Your task to perform on an android device: visit the assistant section in the google photos Image 0: 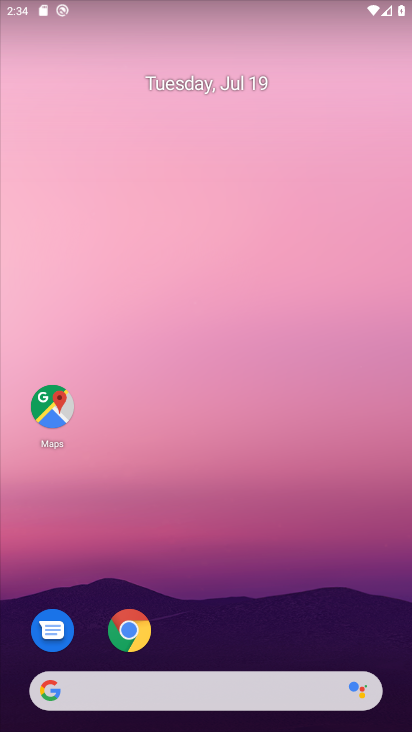
Step 0: drag from (279, 603) to (128, 168)
Your task to perform on an android device: visit the assistant section in the google photos Image 1: 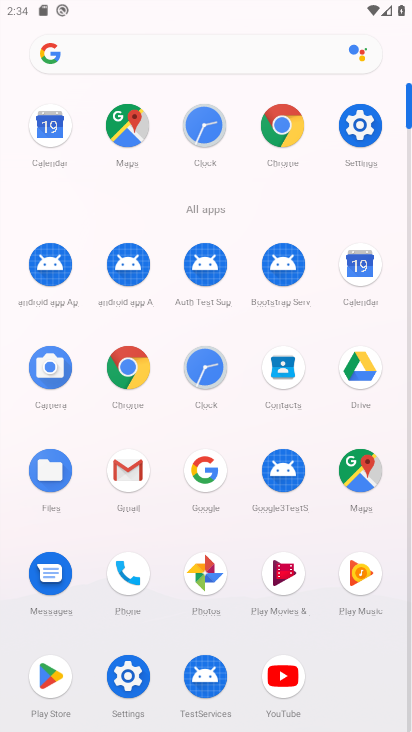
Step 1: click (203, 572)
Your task to perform on an android device: visit the assistant section in the google photos Image 2: 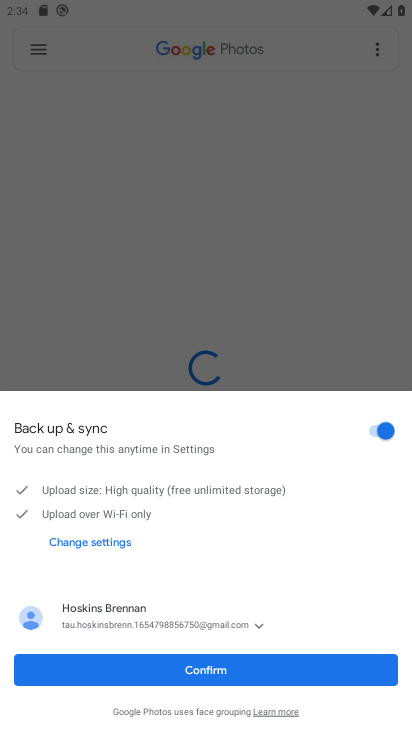
Step 2: click (208, 670)
Your task to perform on an android device: visit the assistant section in the google photos Image 3: 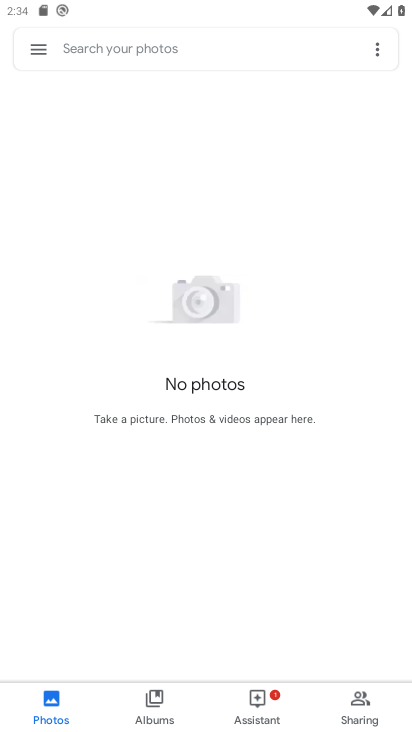
Step 3: click (252, 696)
Your task to perform on an android device: visit the assistant section in the google photos Image 4: 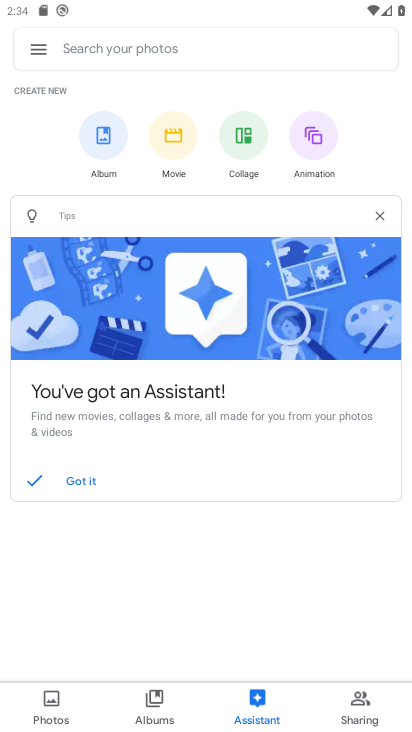
Step 4: task complete